Your task to perform on an android device: Search for asus zenbook on costco.com, select the first entry, and add it to the cart. Image 0: 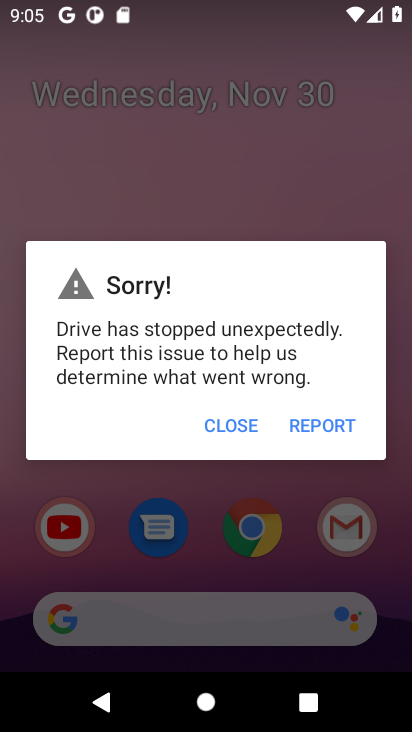
Step 0: press home button
Your task to perform on an android device: Search for asus zenbook on costco.com, select the first entry, and add it to the cart. Image 1: 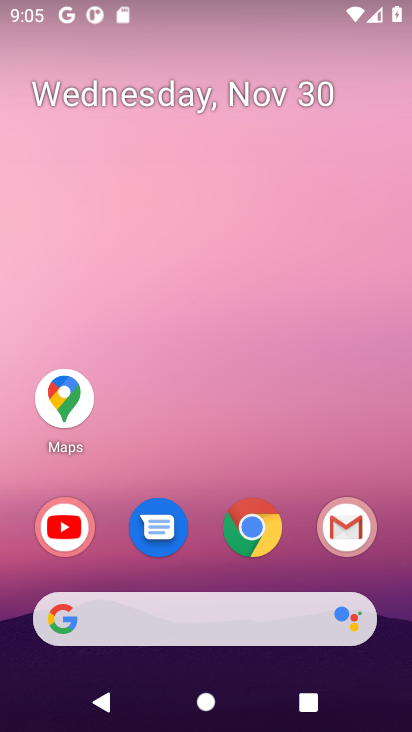
Step 1: click (256, 534)
Your task to perform on an android device: Search for asus zenbook on costco.com, select the first entry, and add it to the cart. Image 2: 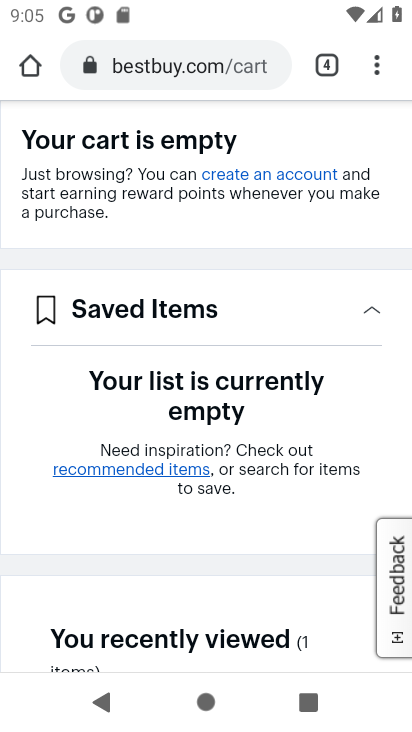
Step 2: click (218, 70)
Your task to perform on an android device: Search for asus zenbook on costco.com, select the first entry, and add it to the cart. Image 3: 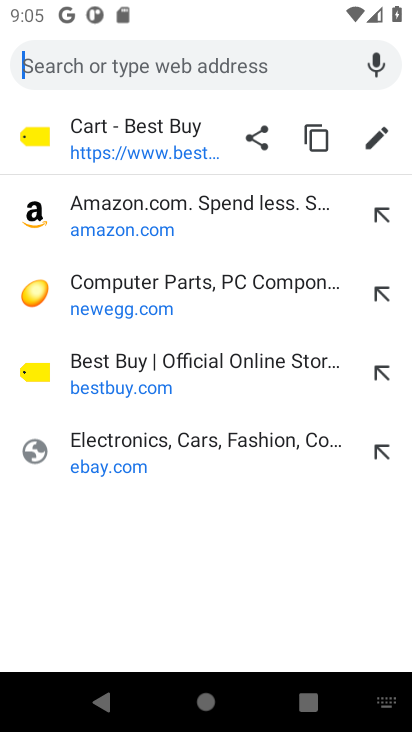
Step 3: type "costco.com"
Your task to perform on an android device: Search for asus zenbook on costco.com, select the first entry, and add it to the cart. Image 4: 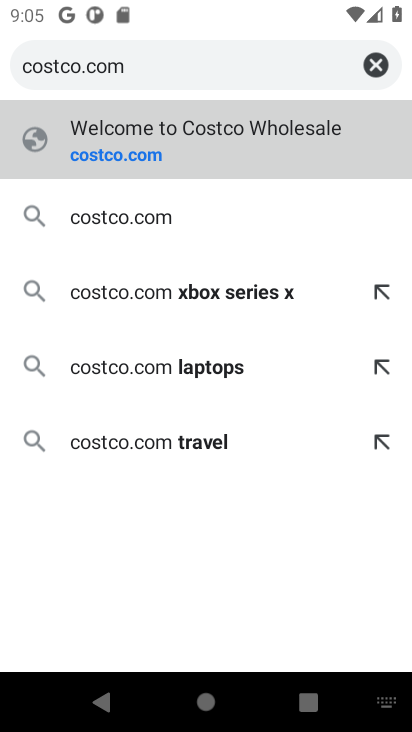
Step 4: press enter
Your task to perform on an android device: Search for asus zenbook on costco.com, select the first entry, and add it to the cart. Image 5: 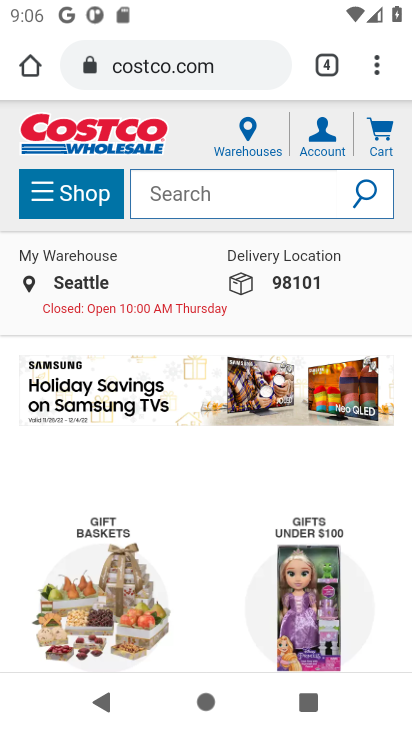
Step 5: click (244, 199)
Your task to perform on an android device: Search for asus zenbook on costco.com, select the first entry, and add it to the cart. Image 6: 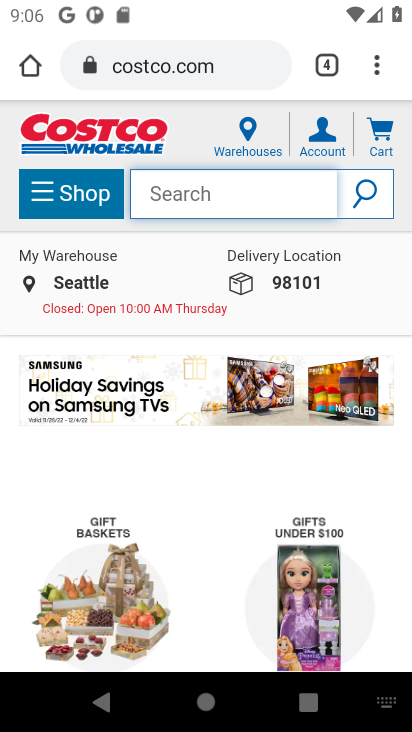
Step 6: type "asus zenbook"
Your task to perform on an android device: Search for asus zenbook on costco.com, select the first entry, and add it to the cart. Image 7: 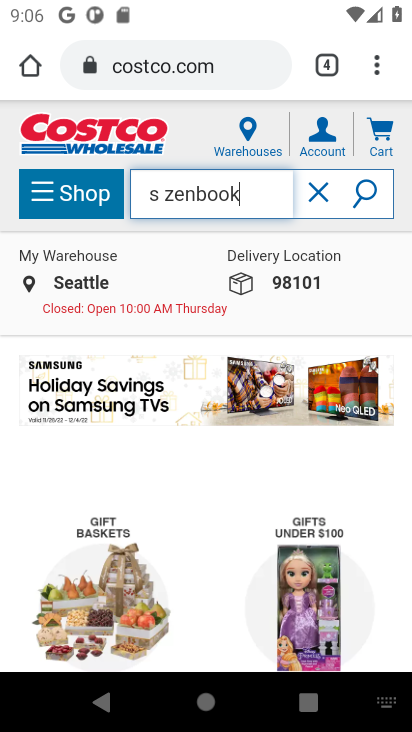
Step 7: press enter
Your task to perform on an android device: Search for asus zenbook on costco.com, select the first entry, and add it to the cart. Image 8: 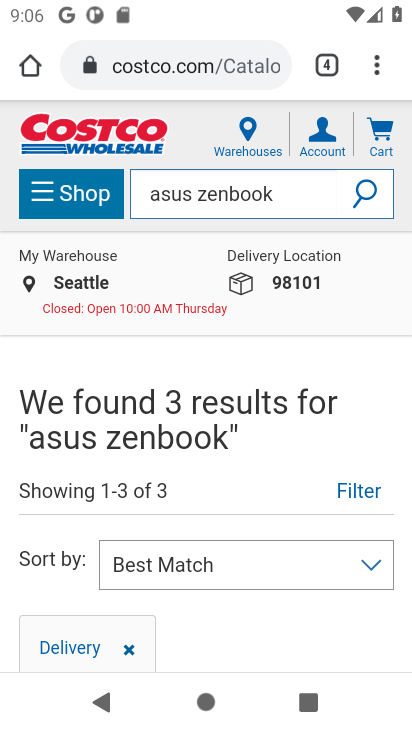
Step 8: drag from (268, 628) to (270, 174)
Your task to perform on an android device: Search for asus zenbook on costco.com, select the first entry, and add it to the cart. Image 9: 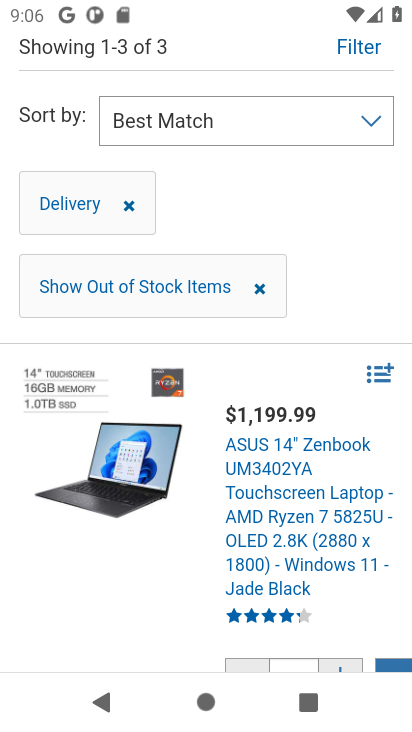
Step 9: drag from (362, 621) to (294, 137)
Your task to perform on an android device: Search for asus zenbook on costco.com, select the first entry, and add it to the cart. Image 10: 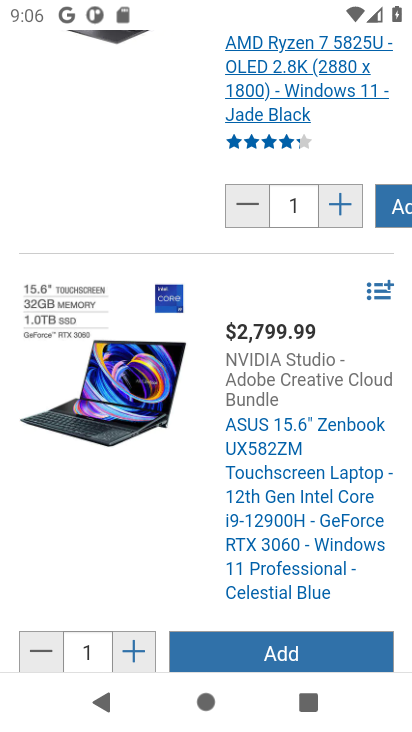
Step 10: drag from (371, 582) to (294, 729)
Your task to perform on an android device: Search for asus zenbook on costco.com, select the first entry, and add it to the cart. Image 11: 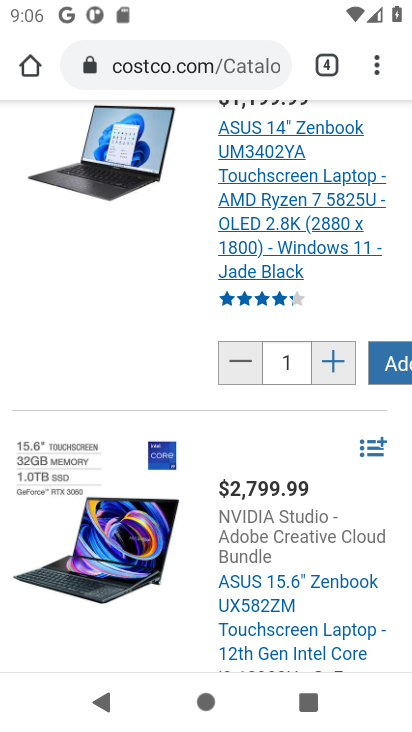
Step 11: drag from (362, 162) to (298, 718)
Your task to perform on an android device: Search for asus zenbook on costco.com, select the first entry, and add it to the cart. Image 12: 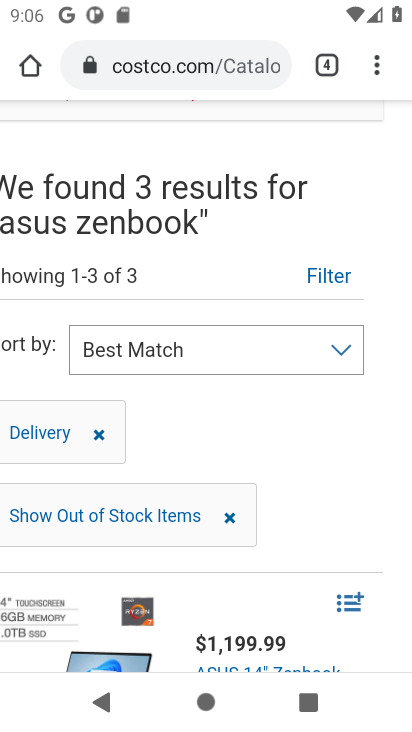
Step 12: drag from (318, 543) to (399, 348)
Your task to perform on an android device: Search for asus zenbook on costco.com, select the first entry, and add it to the cart. Image 13: 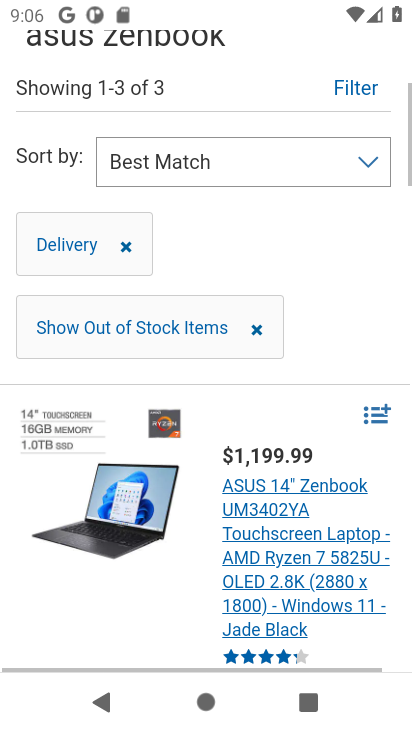
Step 13: click (153, 622)
Your task to perform on an android device: Search for asus zenbook on costco.com, select the first entry, and add it to the cart. Image 14: 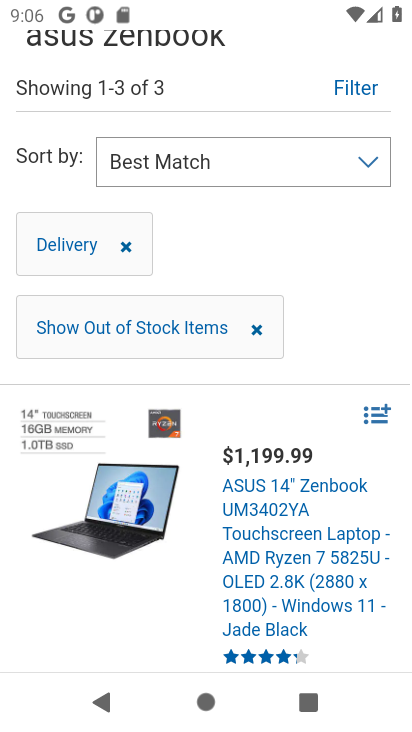
Step 14: click (158, 499)
Your task to perform on an android device: Search for asus zenbook on costco.com, select the first entry, and add it to the cart. Image 15: 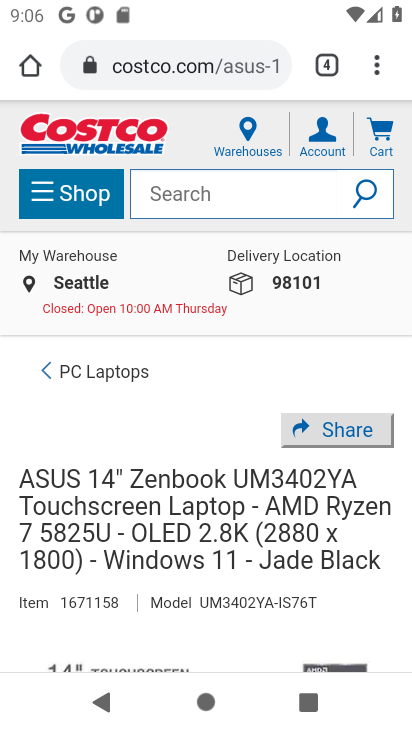
Step 15: drag from (355, 594) to (401, 51)
Your task to perform on an android device: Search for asus zenbook on costco.com, select the first entry, and add it to the cart. Image 16: 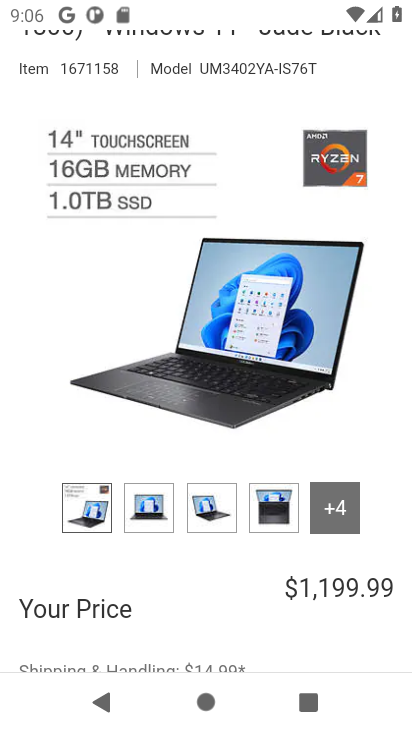
Step 16: drag from (329, 557) to (344, 103)
Your task to perform on an android device: Search for asus zenbook on costco.com, select the first entry, and add it to the cart. Image 17: 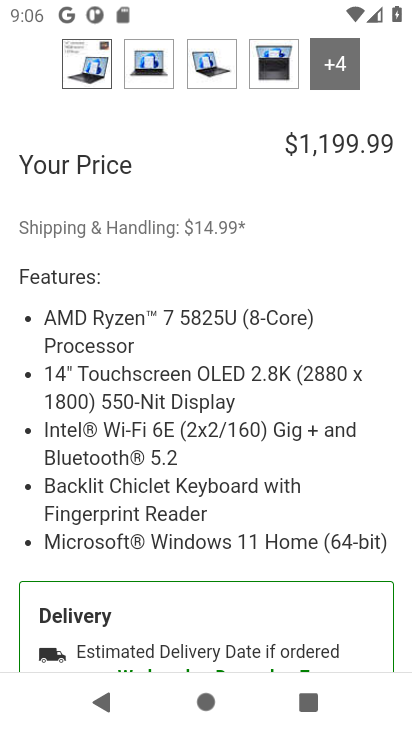
Step 17: drag from (333, 541) to (411, 183)
Your task to perform on an android device: Search for asus zenbook on costco.com, select the first entry, and add it to the cart. Image 18: 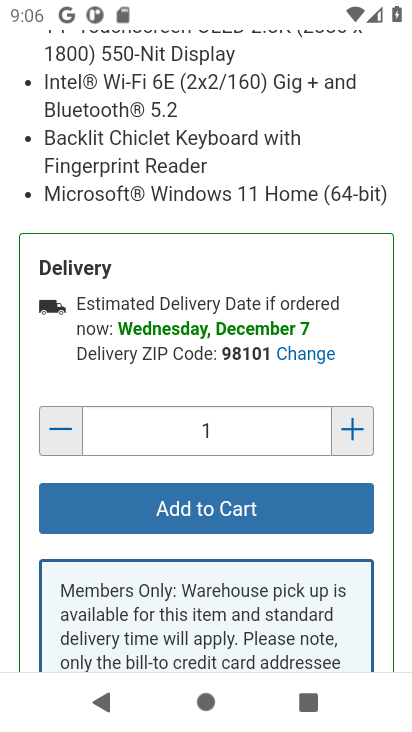
Step 18: click (216, 505)
Your task to perform on an android device: Search for asus zenbook on costco.com, select the first entry, and add it to the cart. Image 19: 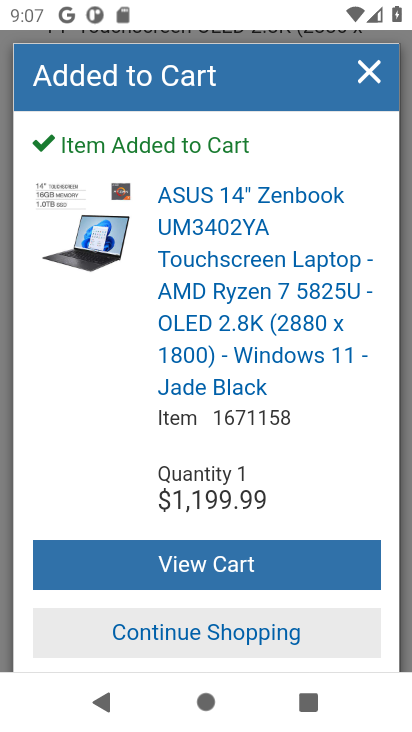
Step 19: click (241, 564)
Your task to perform on an android device: Search for asus zenbook on costco.com, select the first entry, and add it to the cart. Image 20: 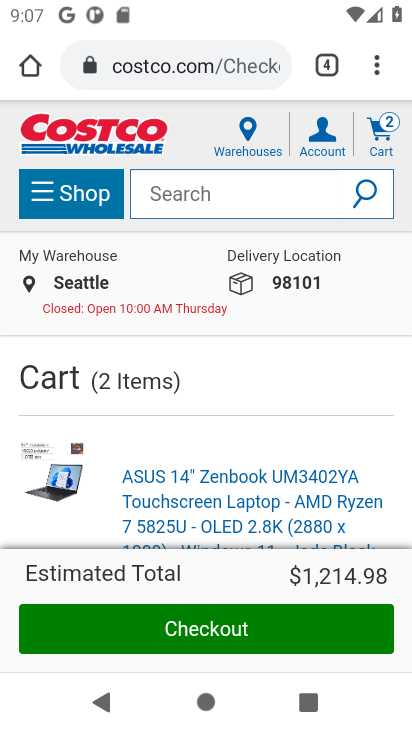
Step 20: task complete